Your task to perform on an android device: Open battery settings Image 0: 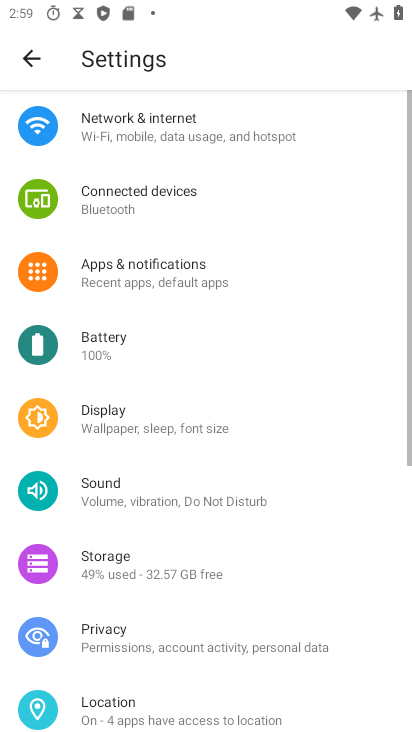
Step 0: press home button
Your task to perform on an android device: Open battery settings Image 1: 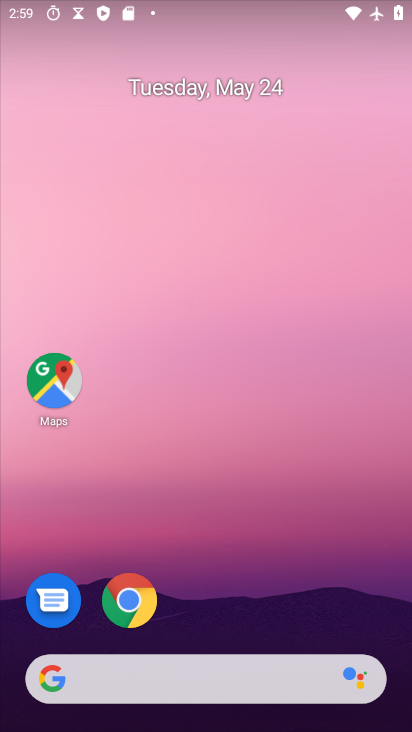
Step 1: drag from (284, 571) to (220, 111)
Your task to perform on an android device: Open battery settings Image 2: 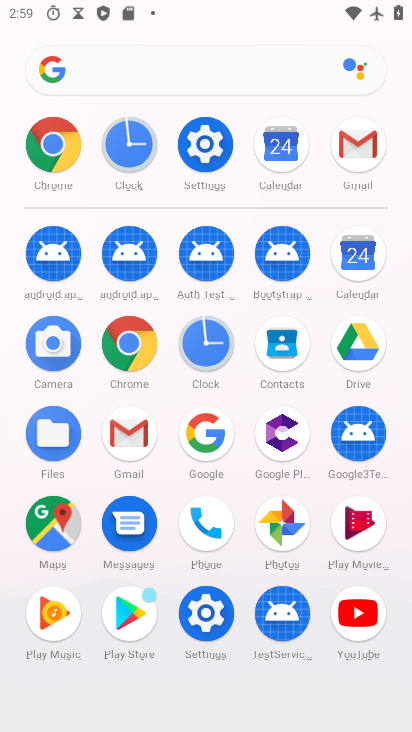
Step 2: click (213, 158)
Your task to perform on an android device: Open battery settings Image 3: 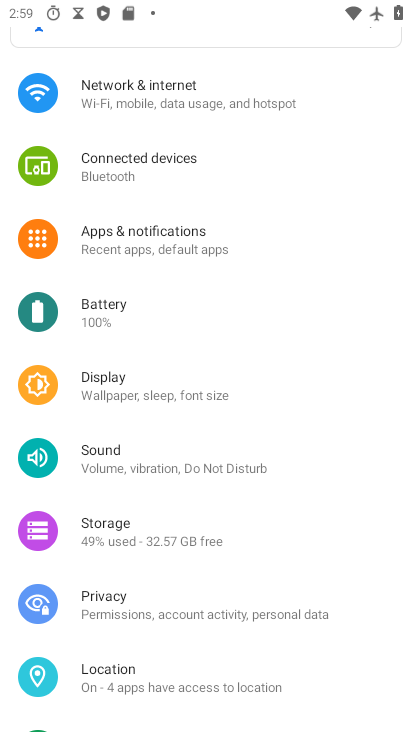
Step 3: click (158, 306)
Your task to perform on an android device: Open battery settings Image 4: 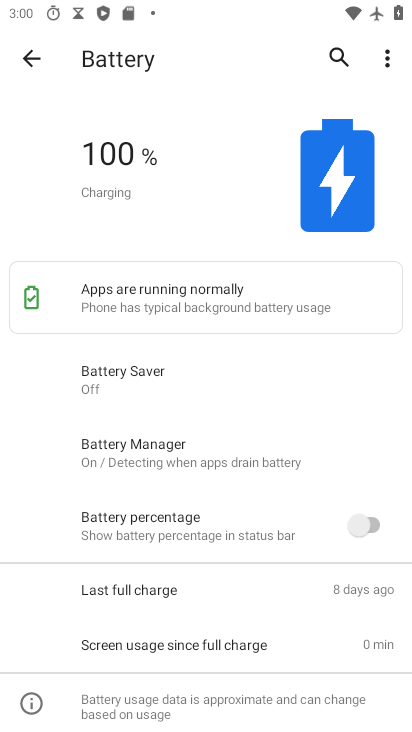
Step 4: task complete